Your task to perform on an android device: Open Chrome and go to the settings page Image 0: 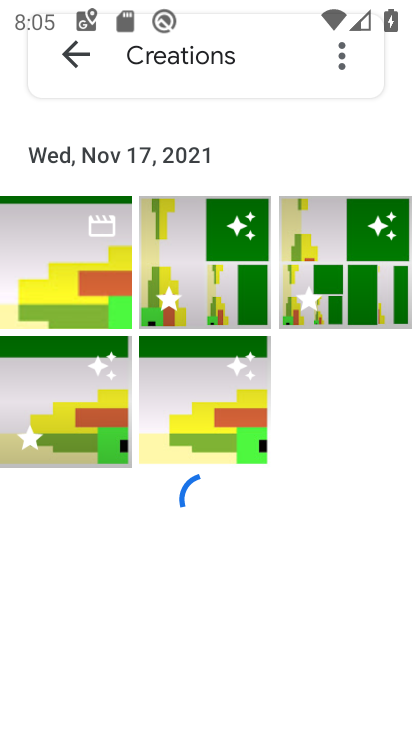
Step 0: press home button
Your task to perform on an android device: Open Chrome and go to the settings page Image 1: 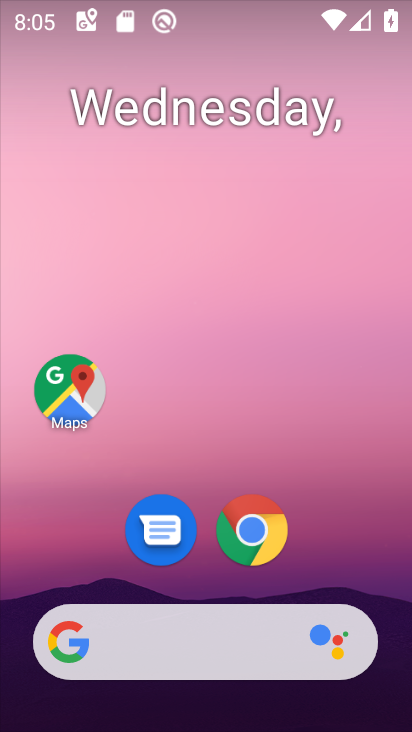
Step 1: drag from (396, 638) to (4, 68)
Your task to perform on an android device: Open Chrome and go to the settings page Image 2: 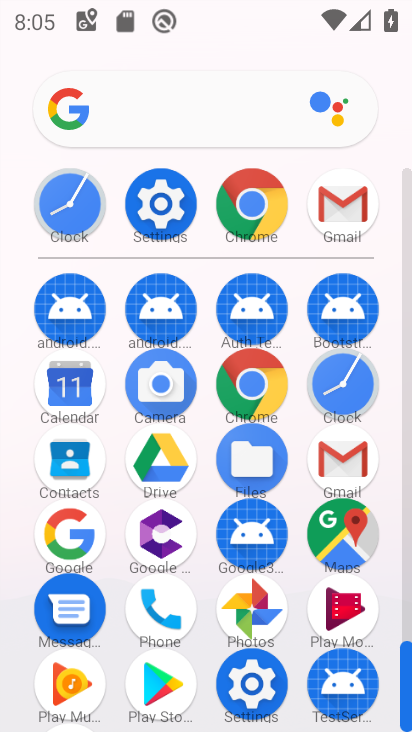
Step 2: click (261, 382)
Your task to perform on an android device: Open Chrome and go to the settings page Image 3: 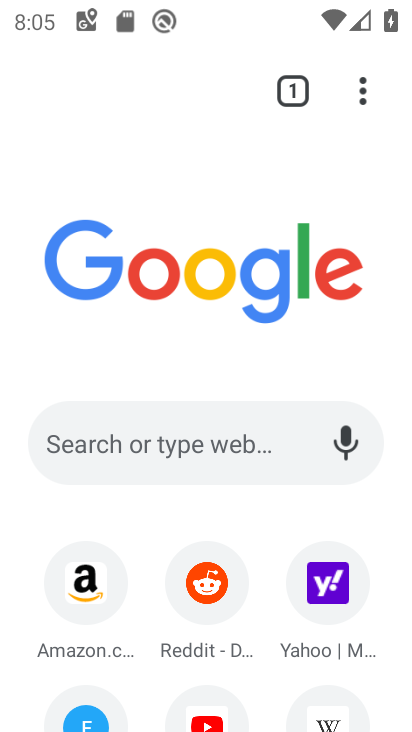
Step 3: click (366, 85)
Your task to perform on an android device: Open Chrome and go to the settings page Image 4: 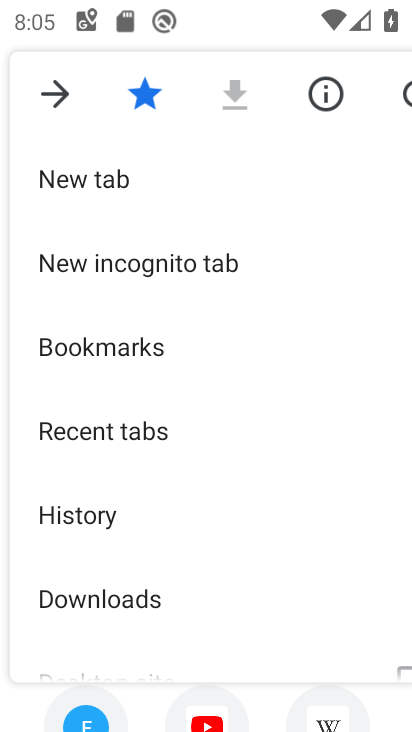
Step 4: drag from (147, 571) to (148, 163)
Your task to perform on an android device: Open Chrome and go to the settings page Image 5: 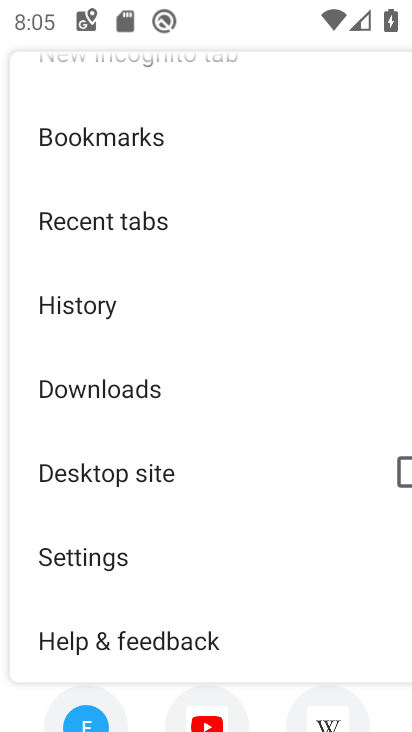
Step 5: click (111, 555)
Your task to perform on an android device: Open Chrome and go to the settings page Image 6: 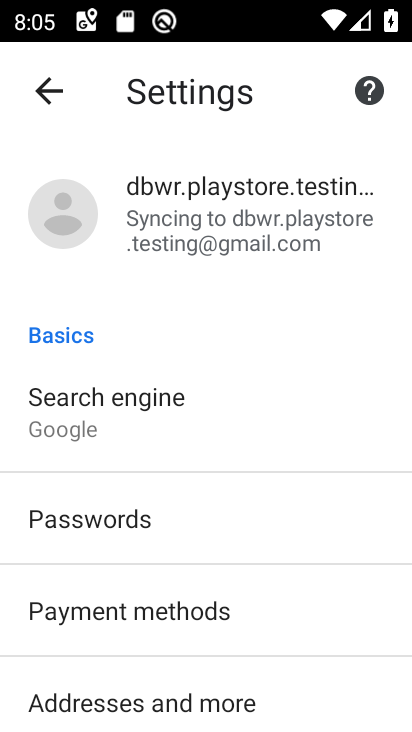
Step 6: task complete